Your task to perform on an android device: change your default location settings in chrome Image 0: 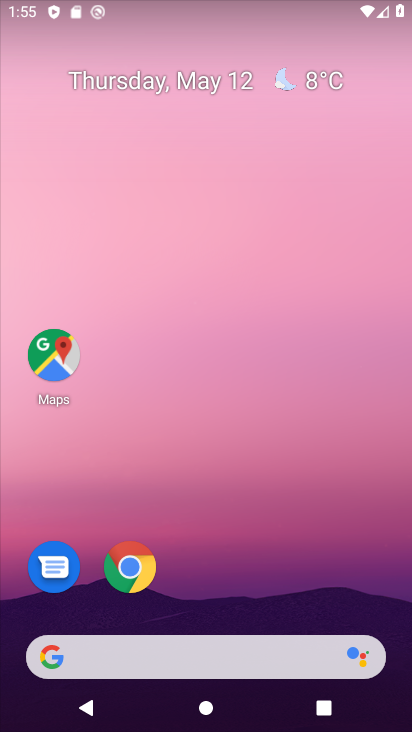
Step 0: click (131, 588)
Your task to perform on an android device: change your default location settings in chrome Image 1: 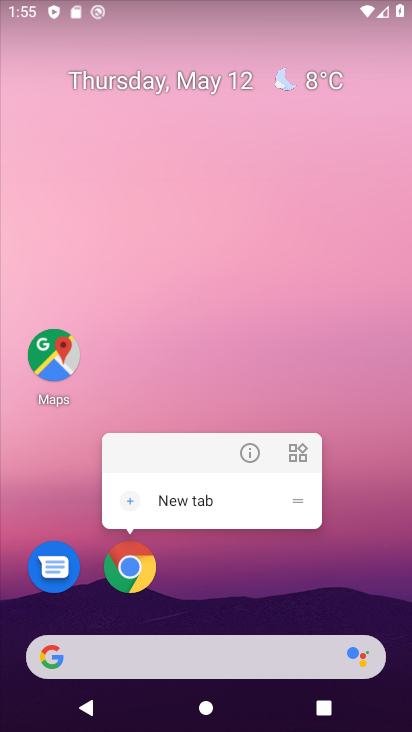
Step 1: click (134, 580)
Your task to perform on an android device: change your default location settings in chrome Image 2: 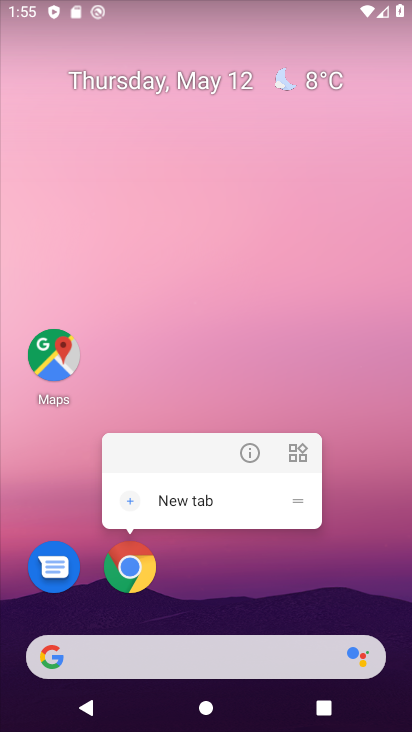
Step 2: click (134, 556)
Your task to perform on an android device: change your default location settings in chrome Image 3: 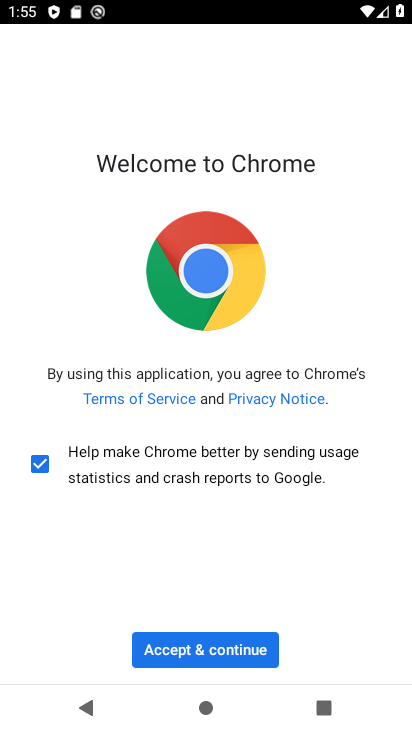
Step 3: click (227, 642)
Your task to perform on an android device: change your default location settings in chrome Image 4: 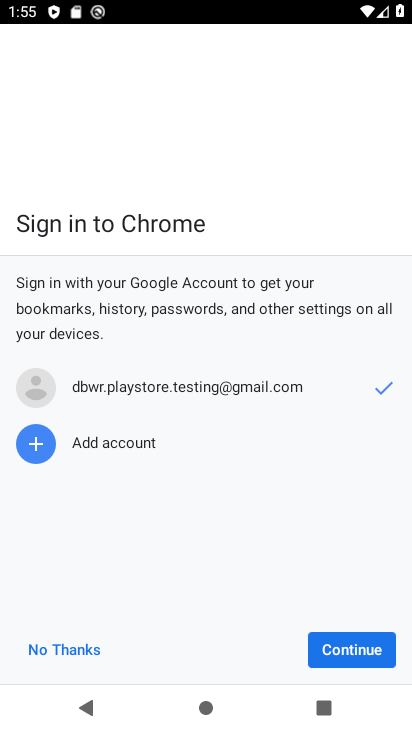
Step 4: click (354, 652)
Your task to perform on an android device: change your default location settings in chrome Image 5: 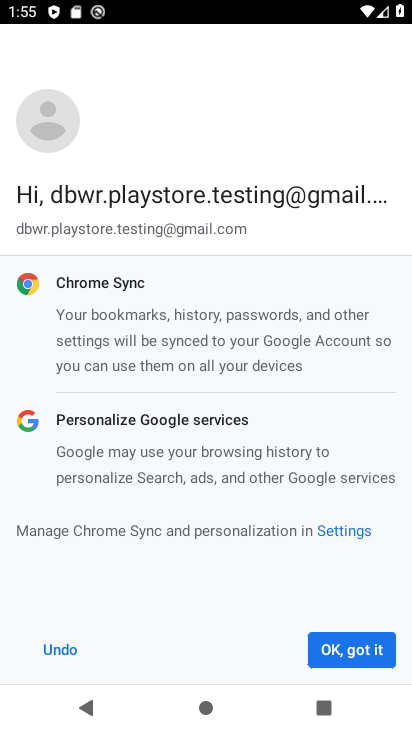
Step 5: click (354, 652)
Your task to perform on an android device: change your default location settings in chrome Image 6: 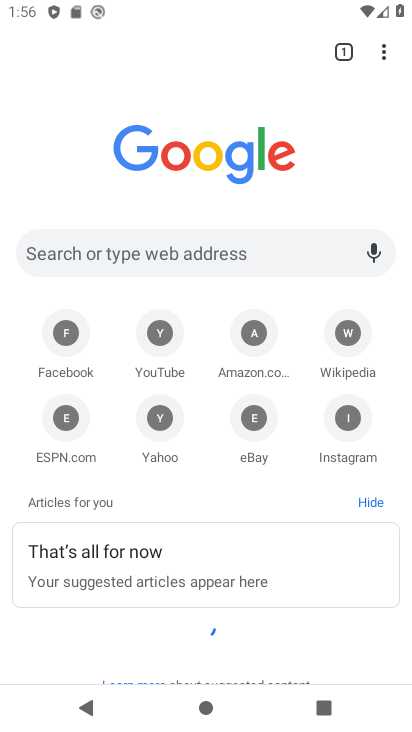
Step 6: drag from (384, 46) to (305, 444)
Your task to perform on an android device: change your default location settings in chrome Image 7: 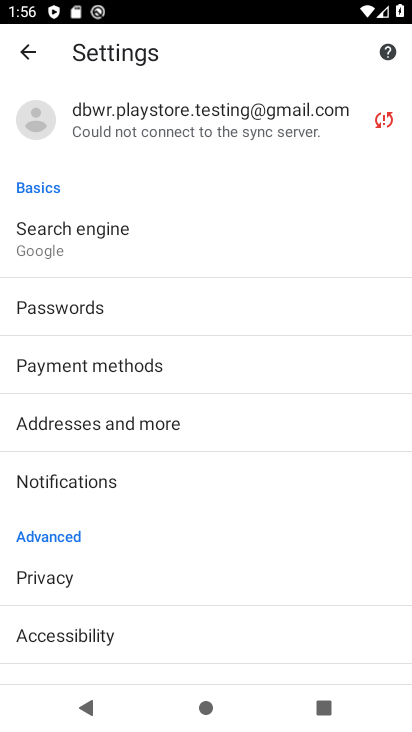
Step 7: drag from (259, 631) to (274, 272)
Your task to perform on an android device: change your default location settings in chrome Image 8: 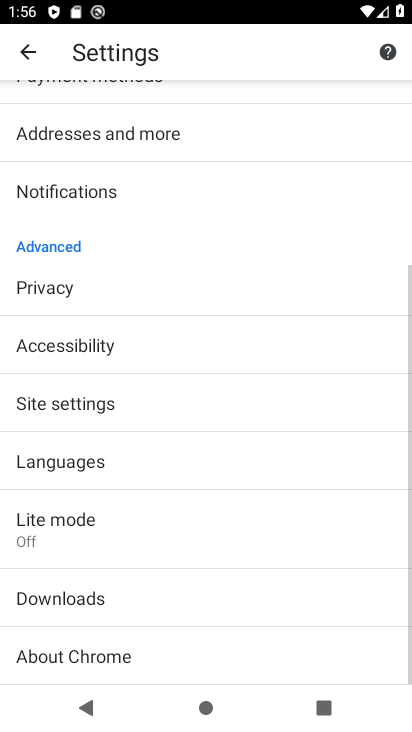
Step 8: click (62, 417)
Your task to perform on an android device: change your default location settings in chrome Image 9: 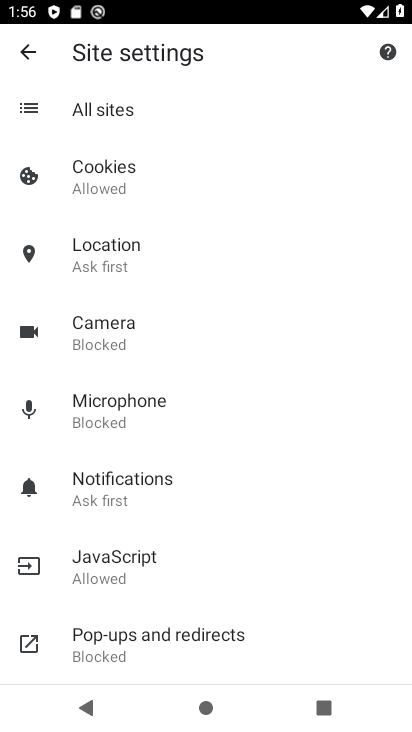
Step 9: click (140, 268)
Your task to perform on an android device: change your default location settings in chrome Image 10: 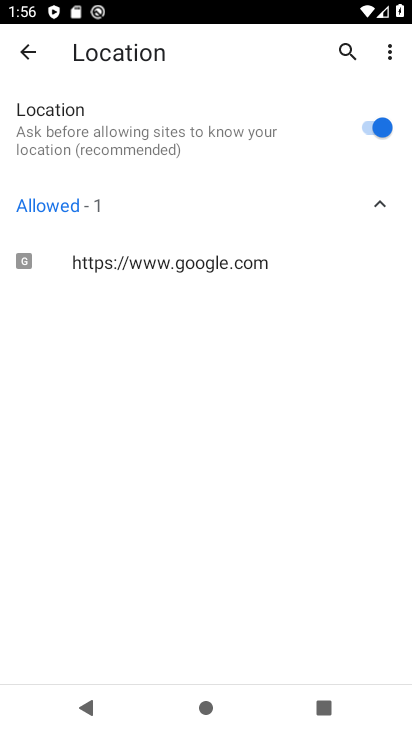
Step 10: click (376, 138)
Your task to perform on an android device: change your default location settings in chrome Image 11: 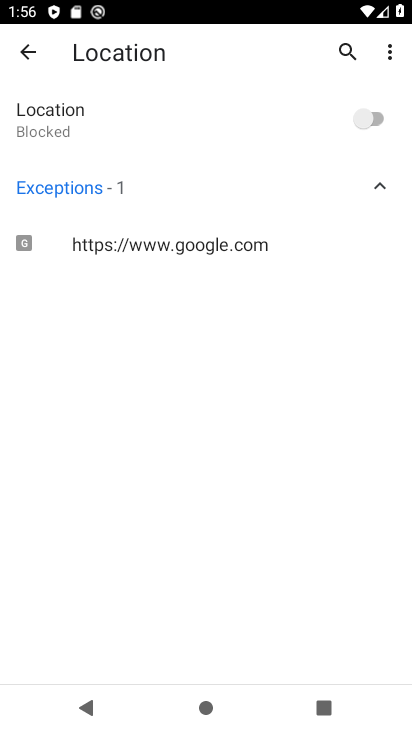
Step 11: task complete